Your task to perform on an android device: What's on my calendar tomorrow? Image 0: 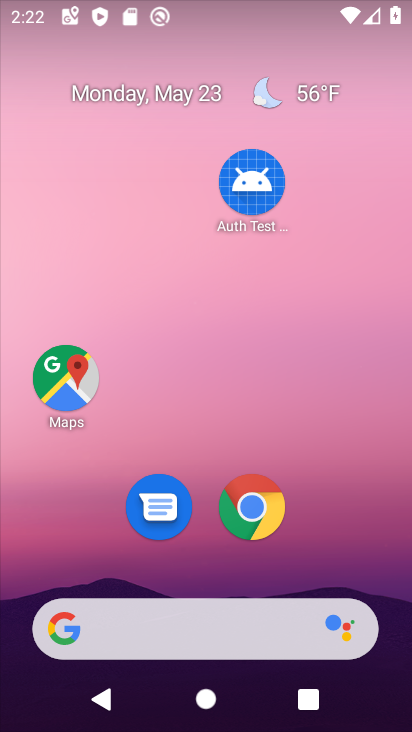
Step 0: click (249, 20)
Your task to perform on an android device: What's on my calendar tomorrow? Image 1: 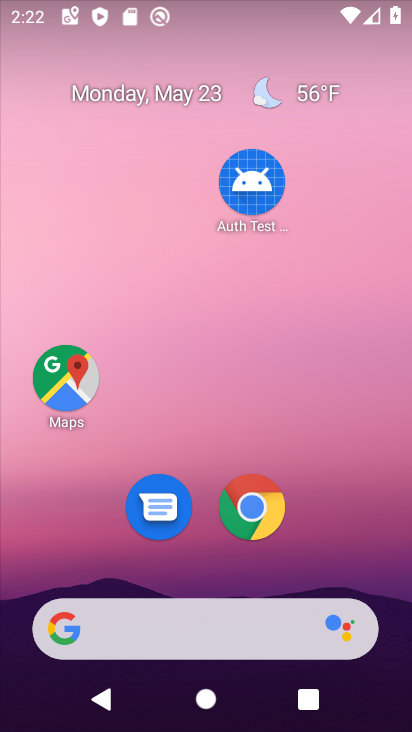
Step 1: click (114, 25)
Your task to perform on an android device: What's on my calendar tomorrow? Image 2: 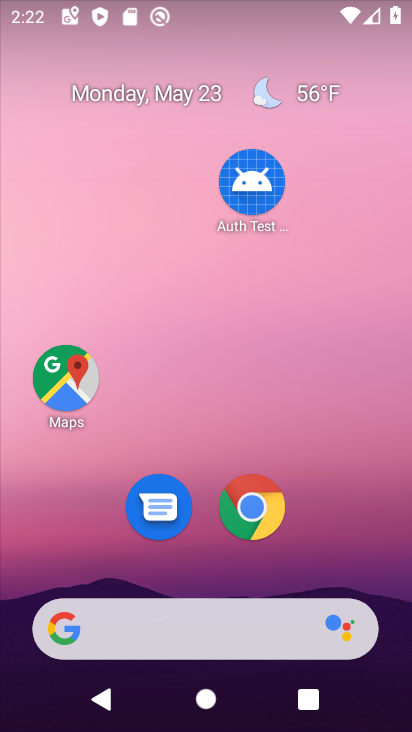
Step 2: click (139, 46)
Your task to perform on an android device: What's on my calendar tomorrow? Image 3: 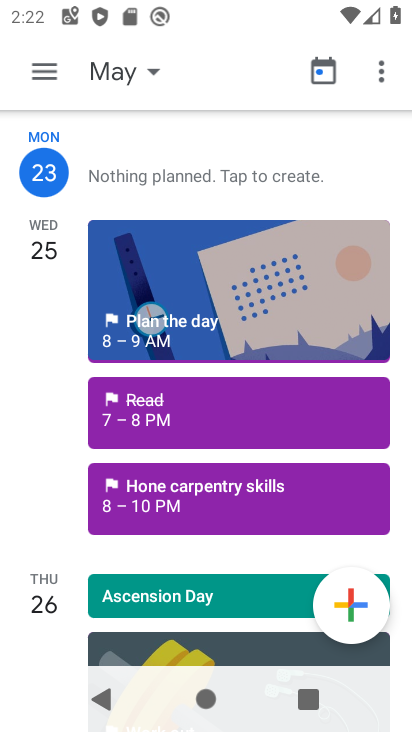
Step 3: click (206, 40)
Your task to perform on an android device: What's on my calendar tomorrow? Image 4: 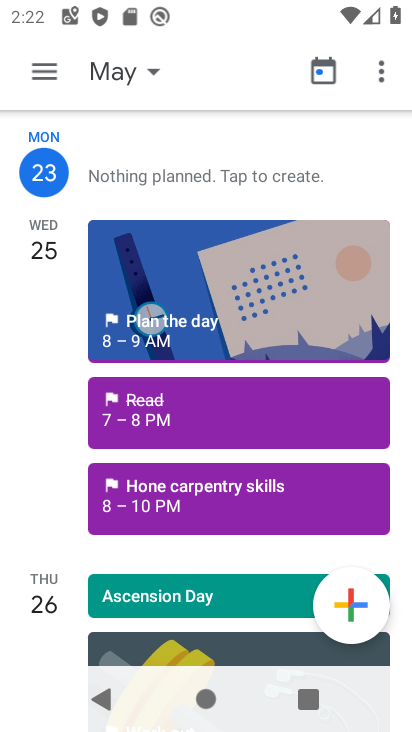
Step 4: drag from (231, 632) to (138, 16)
Your task to perform on an android device: What's on my calendar tomorrow? Image 5: 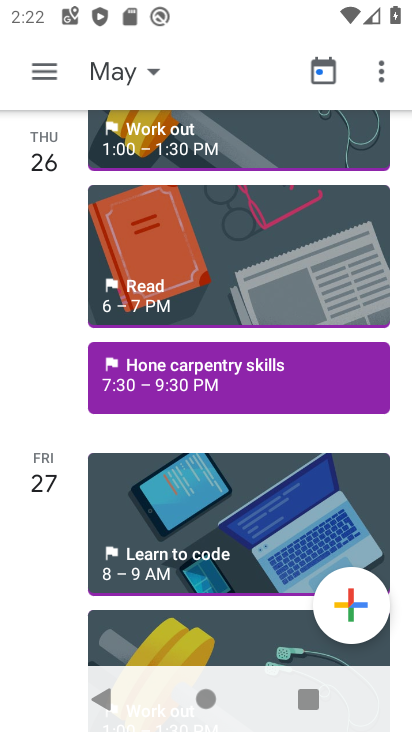
Step 5: click (135, 69)
Your task to perform on an android device: What's on my calendar tomorrow? Image 6: 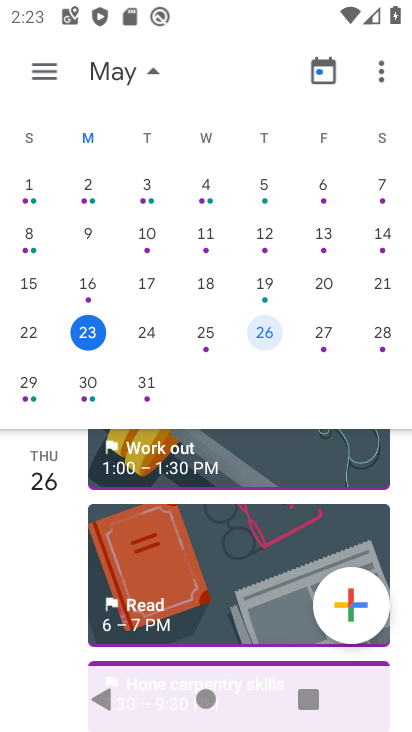
Step 6: click (141, 332)
Your task to perform on an android device: What's on my calendar tomorrow? Image 7: 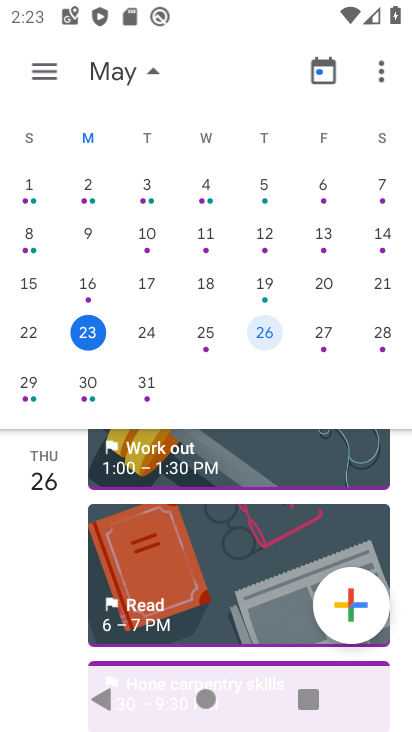
Step 7: click (144, 331)
Your task to perform on an android device: What's on my calendar tomorrow? Image 8: 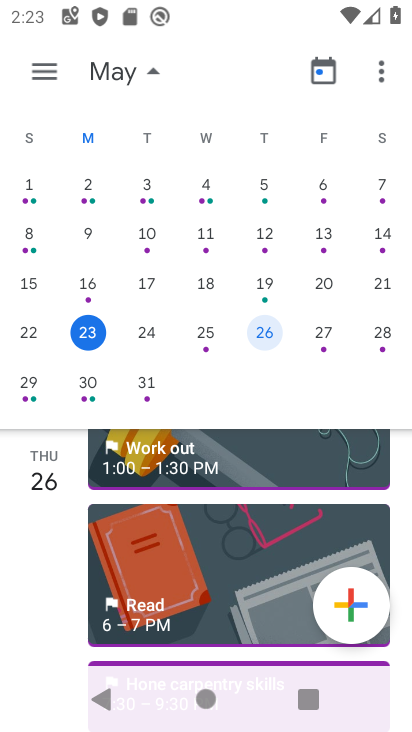
Step 8: click (150, 332)
Your task to perform on an android device: What's on my calendar tomorrow? Image 9: 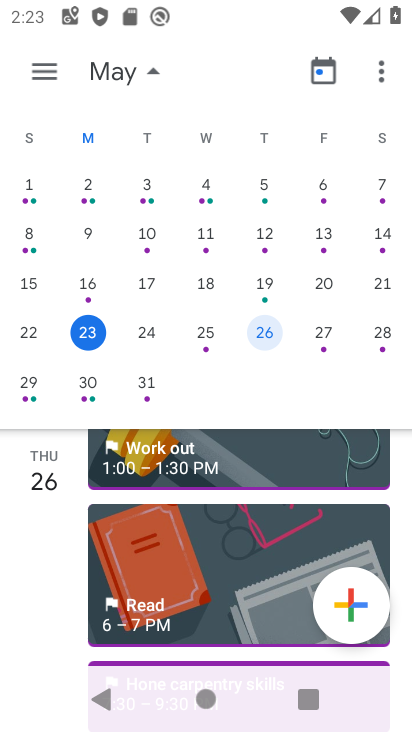
Step 9: click (150, 332)
Your task to perform on an android device: What's on my calendar tomorrow? Image 10: 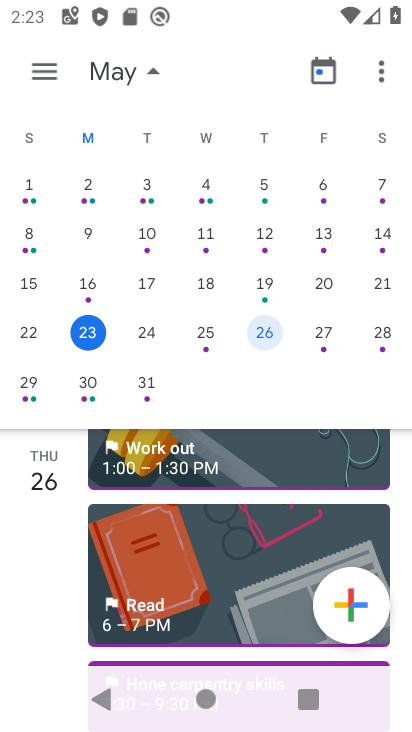
Step 10: drag from (187, 577) to (182, 134)
Your task to perform on an android device: What's on my calendar tomorrow? Image 11: 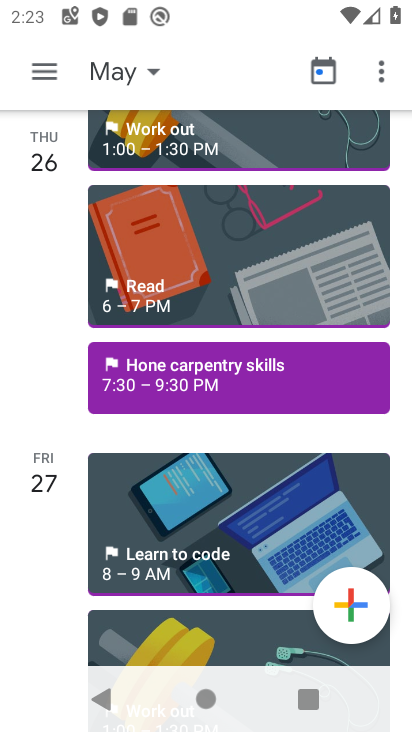
Step 11: drag from (250, 550) to (193, 246)
Your task to perform on an android device: What's on my calendar tomorrow? Image 12: 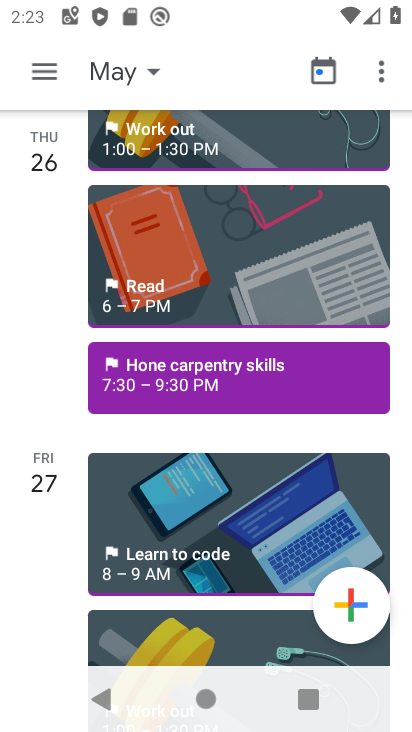
Step 12: drag from (136, 200) to (159, 635)
Your task to perform on an android device: What's on my calendar tomorrow? Image 13: 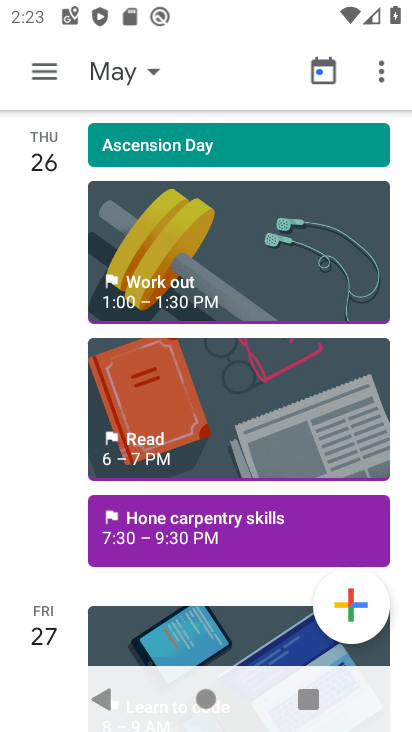
Step 13: drag from (155, 327) to (161, 597)
Your task to perform on an android device: What's on my calendar tomorrow? Image 14: 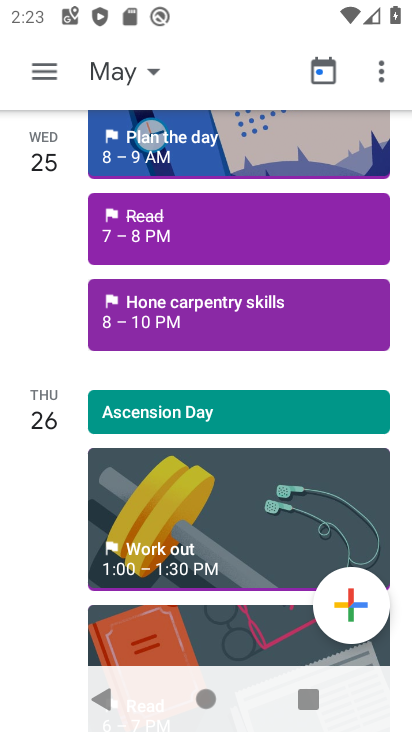
Step 14: drag from (140, 354) to (170, 604)
Your task to perform on an android device: What's on my calendar tomorrow? Image 15: 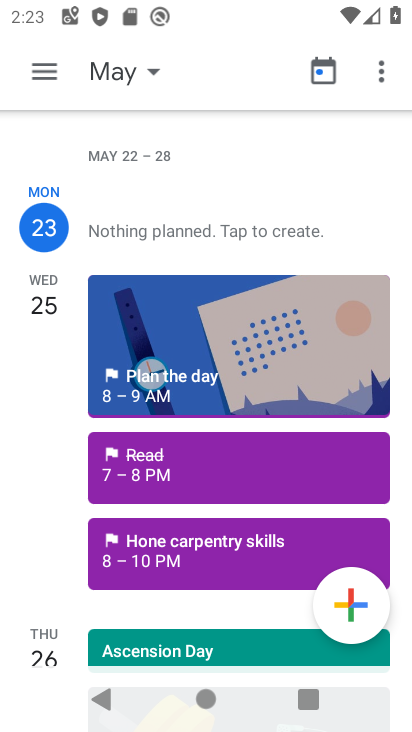
Step 15: drag from (203, 595) to (154, 174)
Your task to perform on an android device: What's on my calendar tomorrow? Image 16: 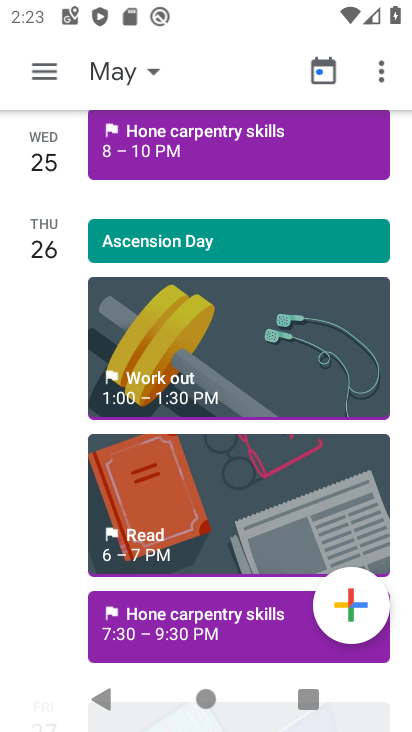
Step 16: drag from (186, 556) to (188, 161)
Your task to perform on an android device: What's on my calendar tomorrow? Image 17: 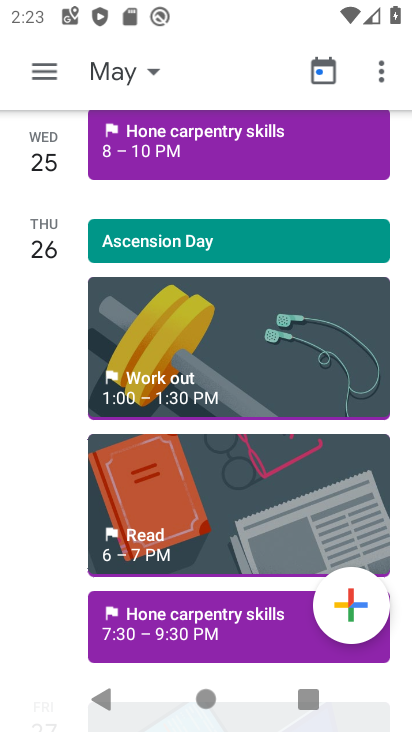
Step 17: drag from (242, 508) to (214, 169)
Your task to perform on an android device: What's on my calendar tomorrow? Image 18: 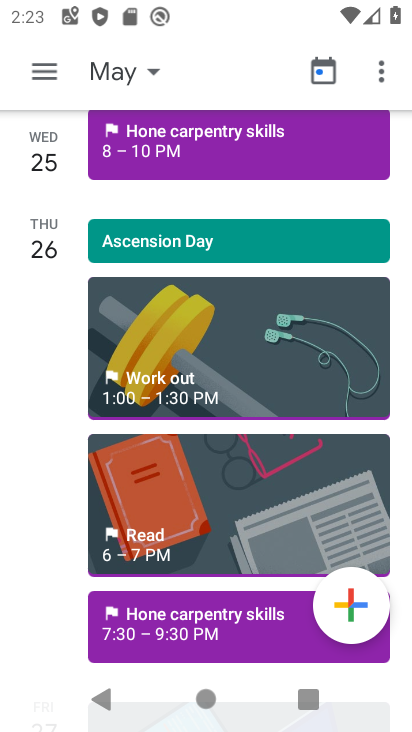
Step 18: drag from (217, 429) to (177, 123)
Your task to perform on an android device: What's on my calendar tomorrow? Image 19: 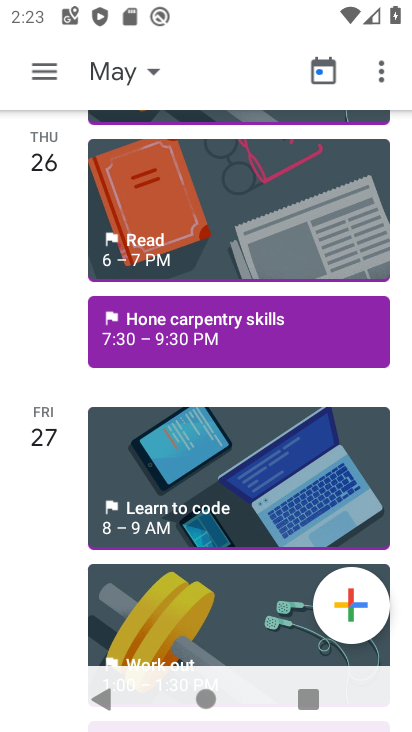
Step 19: drag from (226, 466) to (138, 136)
Your task to perform on an android device: What's on my calendar tomorrow? Image 20: 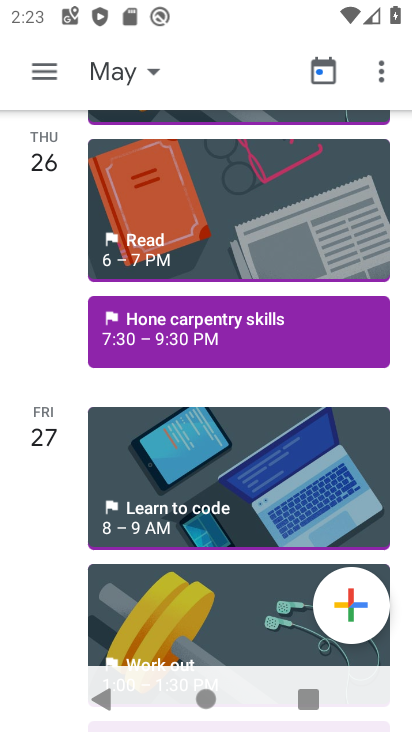
Step 20: drag from (147, 446) to (101, 144)
Your task to perform on an android device: What's on my calendar tomorrow? Image 21: 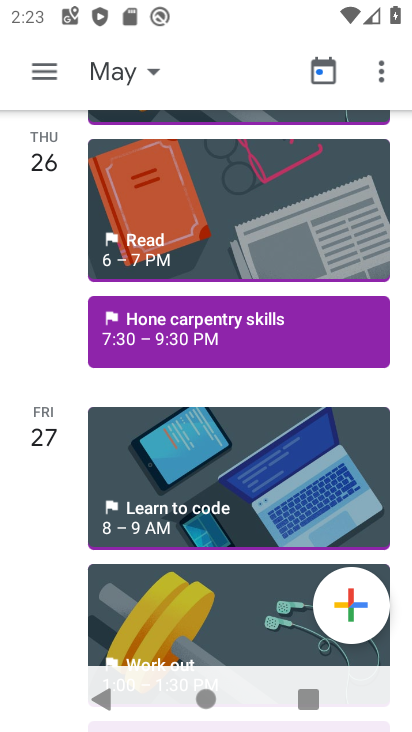
Step 21: drag from (140, 247) to (190, 472)
Your task to perform on an android device: What's on my calendar tomorrow? Image 22: 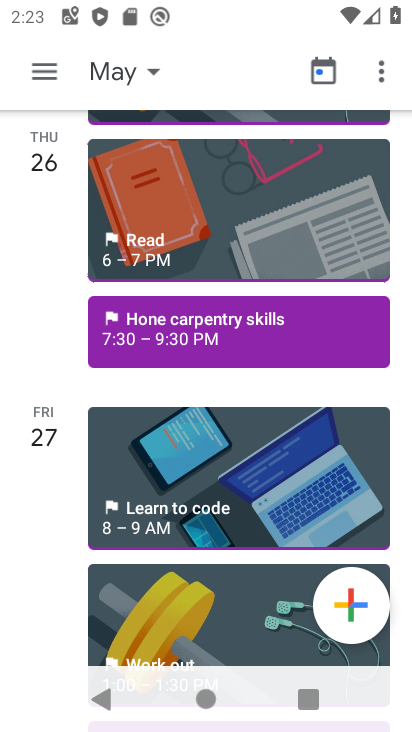
Step 22: drag from (165, 255) to (181, 547)
Your task to perform on an android device: What's on my calendar tomorrow? Image 23: 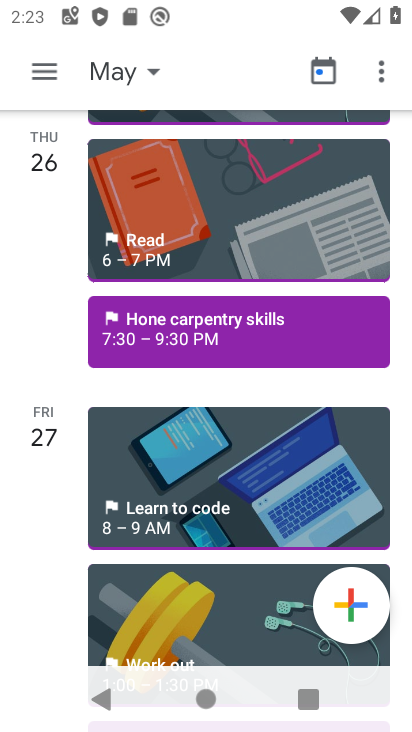
Step 23: drag from (152, 274) to (206, 610)
Your task to perform on an android device: What's on my calendar tomorrow? Image 24: 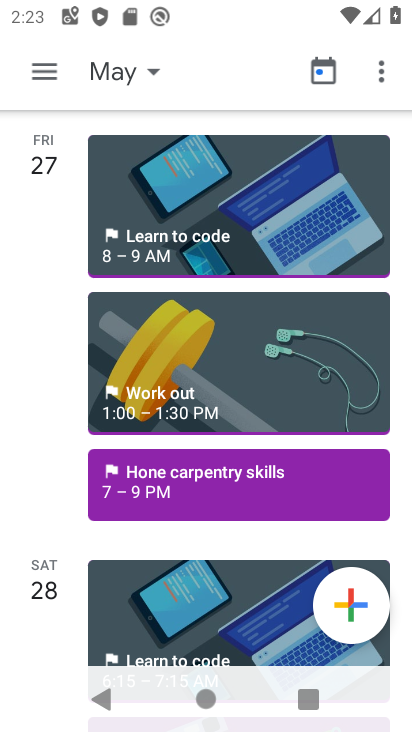
Step 24: drag from (176, 239) to (199, 672)
Your task to perform on an android device: What's on my calendar tomorrow? Image 25: 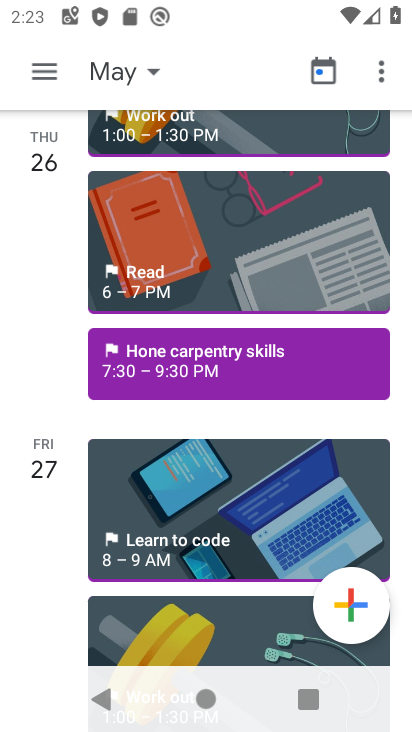
Step 25: drag from (180, 232) to (195, 610)
Your task to perform on an android device: What's on my calendar tomorrow? Image 26: 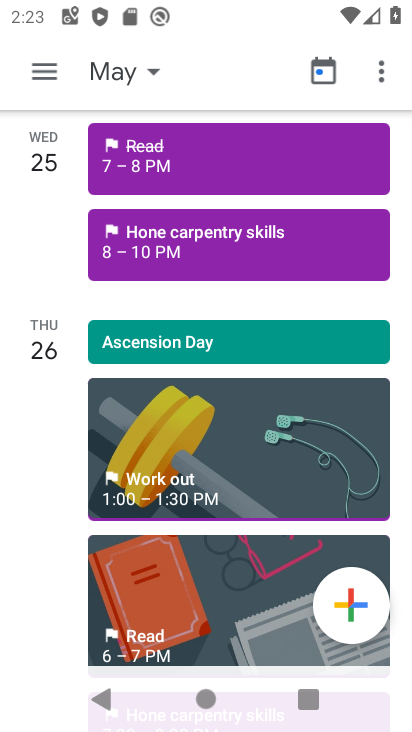
Step 26: drag from (176, 228) to (197, 553)
Your task to perform on an android device: What's on my calendar tomorrow? Image 27: 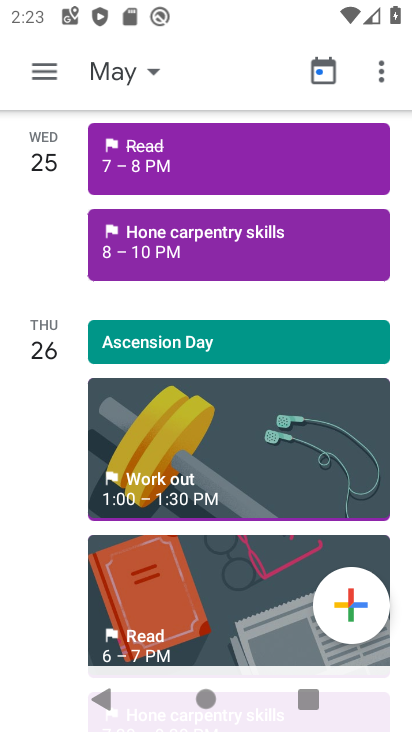
Step 27: drag from (205, 219) to (207, 614)
Your task to perform on an android device: What's on my calendar tomorrow? Image 28: 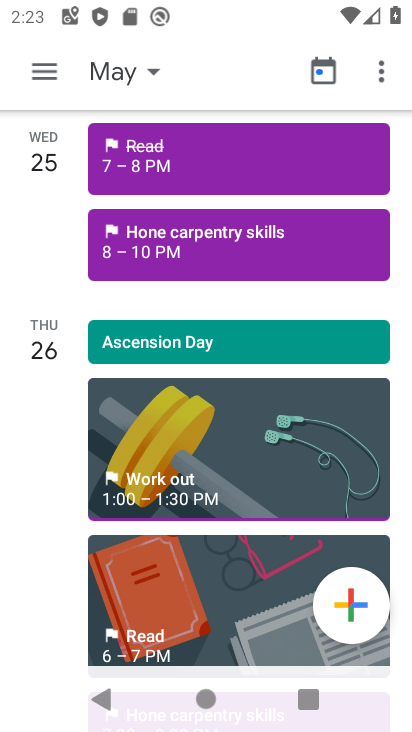
Step 28: drag from (151, 283) to (187, 537)
Your task to perform on an android device: What's on my calendar tomorrow? Image 29: 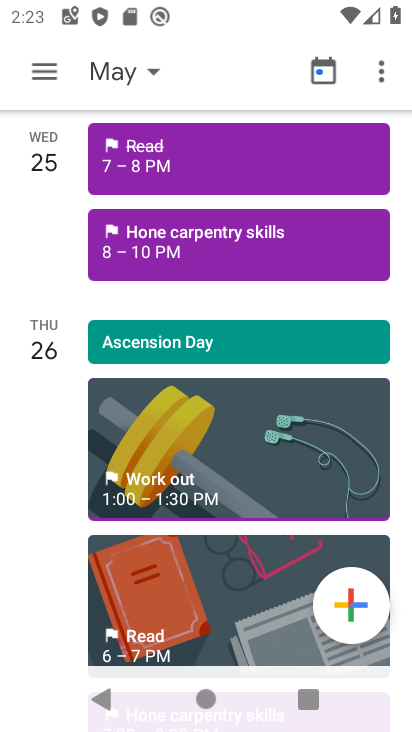
Step 29: drag from (193, 232) to (217, 654)
Your task to perform on an android device: What's on my calendar tomorrow? Image 30: 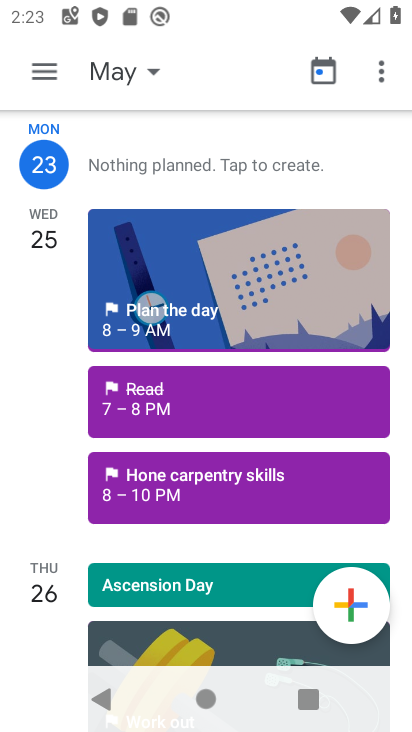
Step 30: drag from (146, 235) to (146, 578)
Your task to perform on an android device: What's on my calendar tomorrow? Image 31: 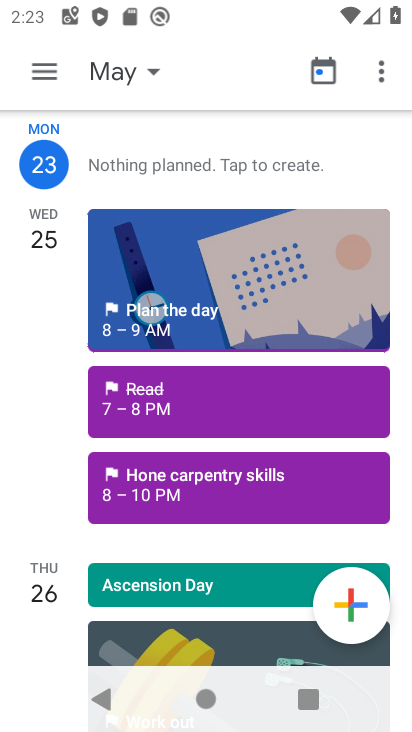
Step 31: drag from (194, 279) to (199, 583)
Your task to perform on an android device: What's on my calendar tomorrow? Image 32: 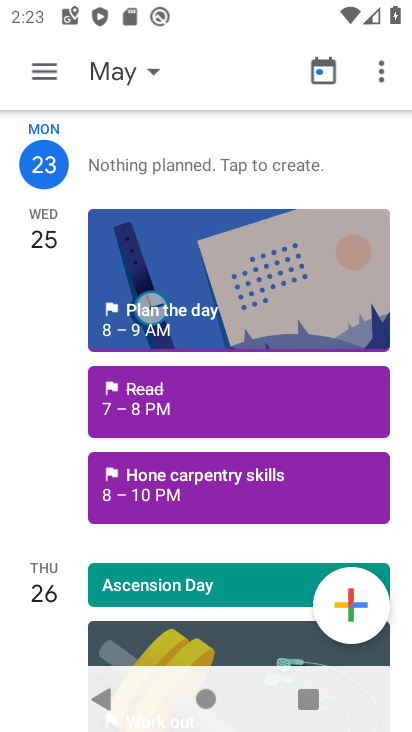
Step 32: drag from (162, 221) to (148, 551)
Your task to perform on an android device: What's on my calendar tomorrow? Image 33: 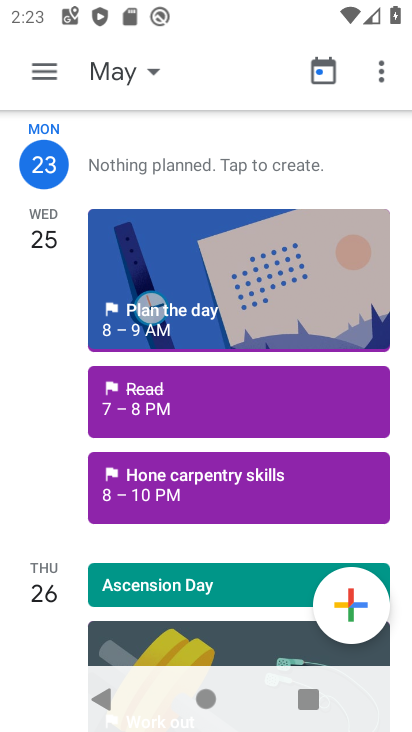
Step 33: click (161, 294)
Your task to perform on an android device: What's on my calendar tomorrow? Image 34: 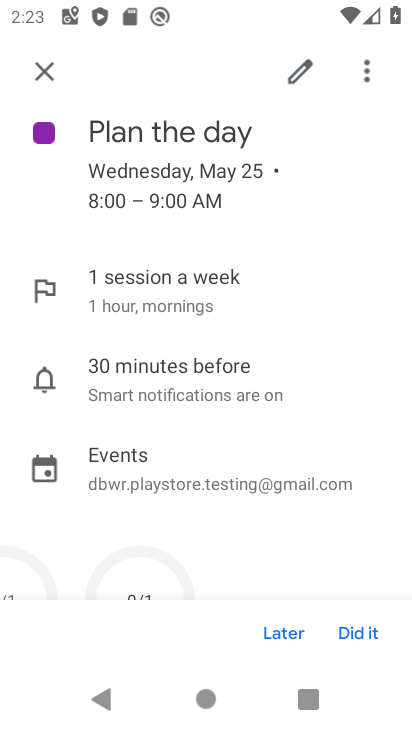
Step 34: task complete